Your task to perform on an android device: Go to privacy settings Image 0: 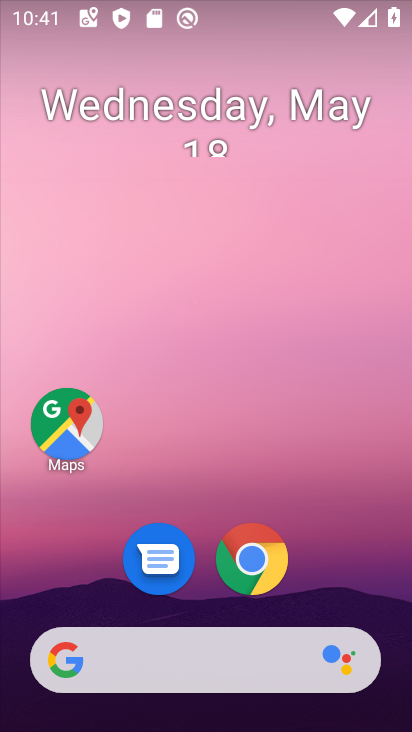
Step 0: drag from (204, 592) to (287, 78)
Your task to perform on an android device: Go to privacy settings Image 1: 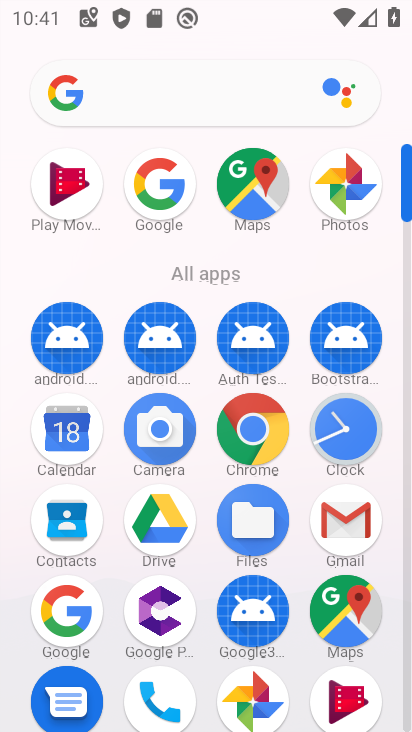
Step 1: drag from (151, 641) to (282, 77)
Your task to perform on an android device: Go to privacy settings Image 2: 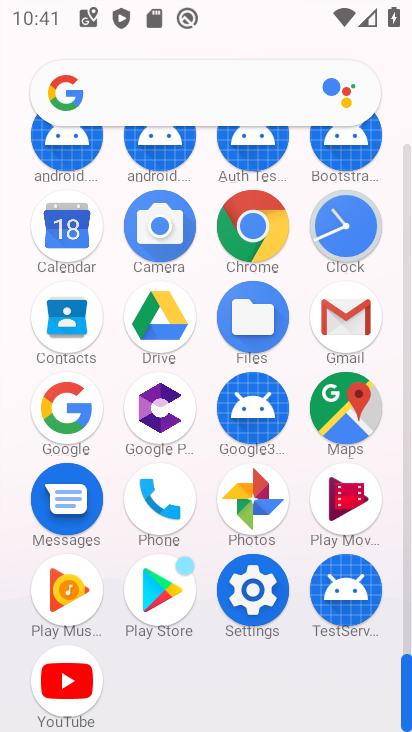
Step 2: click (258, 597)
Your task to perform on an android device: Go to privacy settings Image 3: 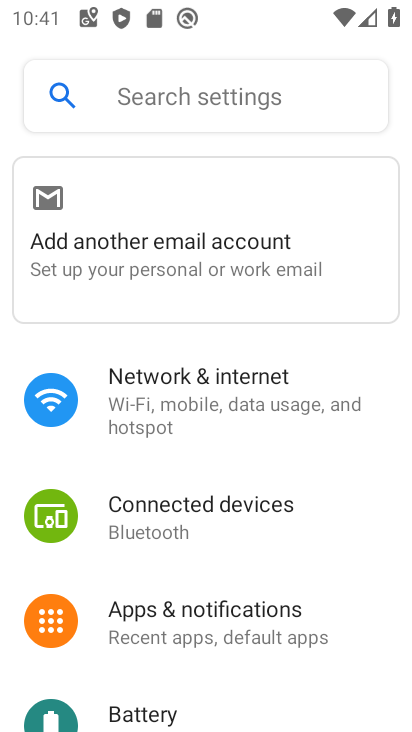
Step 3: drag from (181, 670) to (273, 118)
Your task to perform on an android device: Go to privacy settings Image 4: 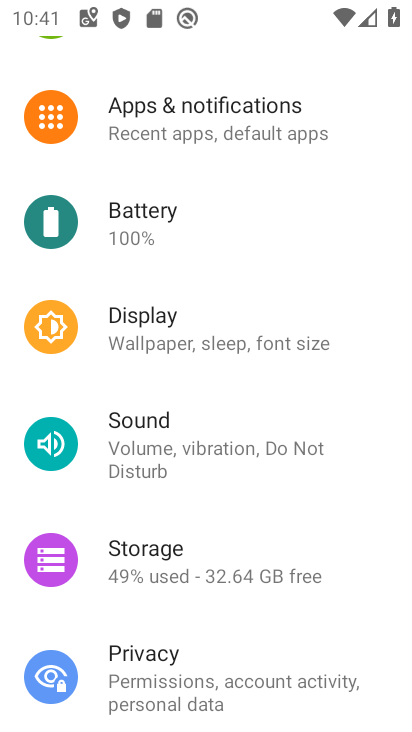
Step 4: click (126, 677)
Your task to perform on an android device: Go to privacy settings Image 5: 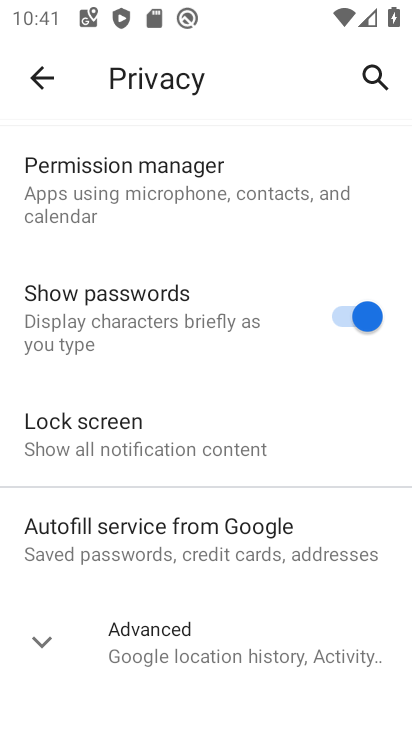
Step 5: task complete